Your task to perform on an android device: make emails show in primary in the gmail app Image 0: 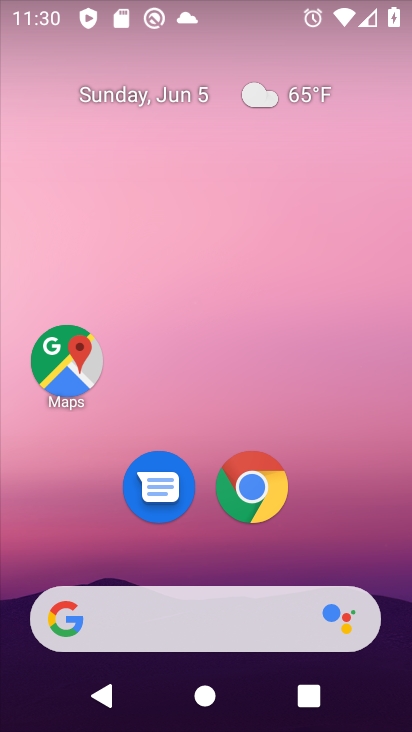
Step 0: drag from (366, 491) to (230, 30)
Your task to perform on an android device: make emails show in primary in the gmail app Image 1: 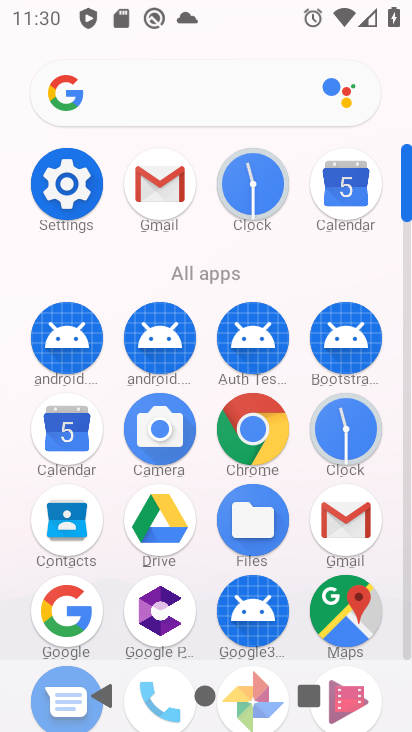
Step 1: click (158, 184)
Your task to perform on an android device: make emails show in primary in the gmail app Image 2: 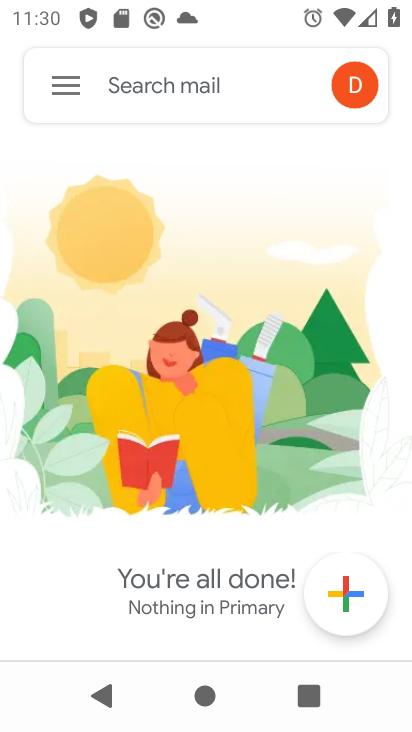
Step 2: click (55, 86)
Your task to perform on an android device: make emails show in primary in the gmail app Image 3: 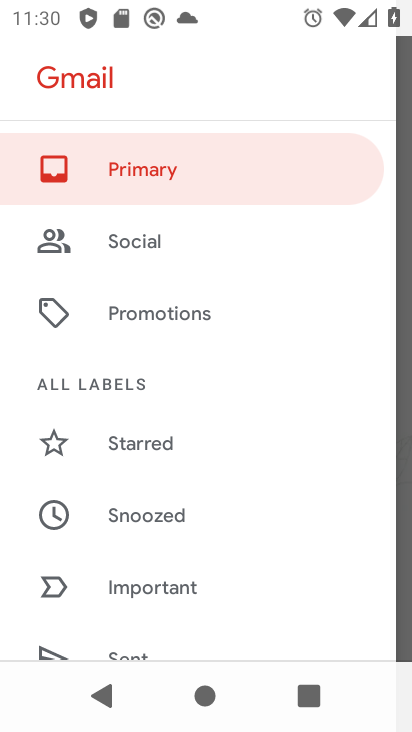
Step 3: click (187, 155)
Your task to perform on an android device: make emails show in primary in the gmail app Image 4: 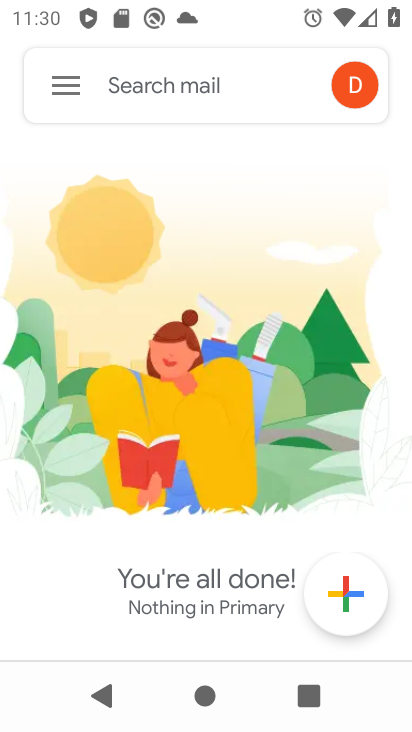
Step 4: task complete